Your task to perform on an android device: clear history in the chrome app Image 0: 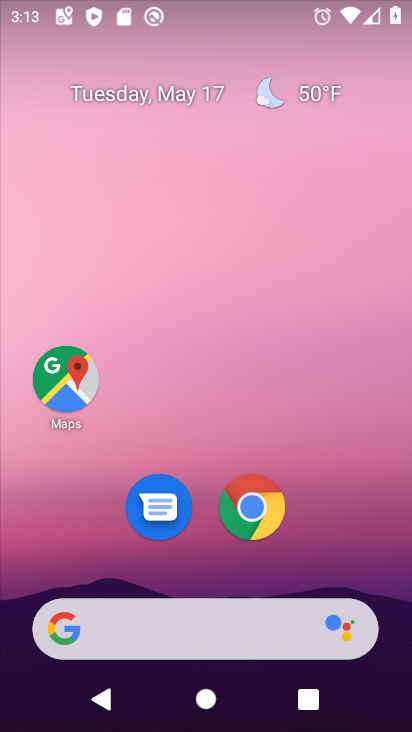
Step 0: click (263, 519)
Your task to perform on an android device: clear history in the chrome app Image 1: 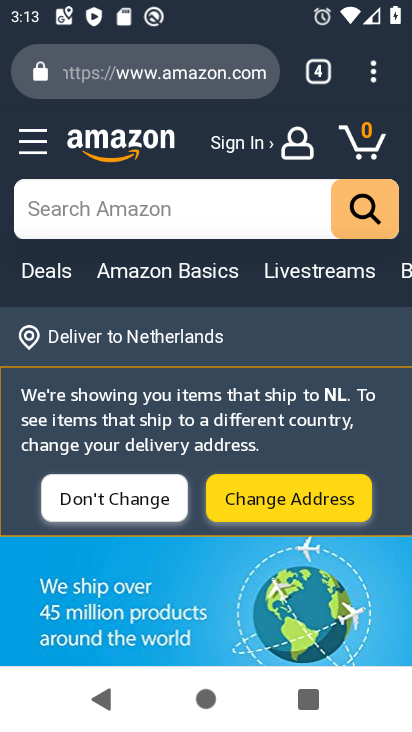
Step 1: click (370, 64)
Your task to perform on an android device: clear history in the chrome app Image 2: 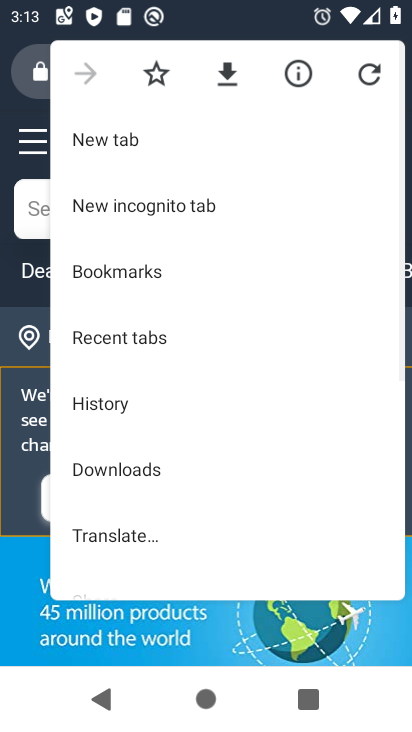
Step 2: click (118, 403)
Your task to perform on an android device: clear history in the chrome app Image 3: 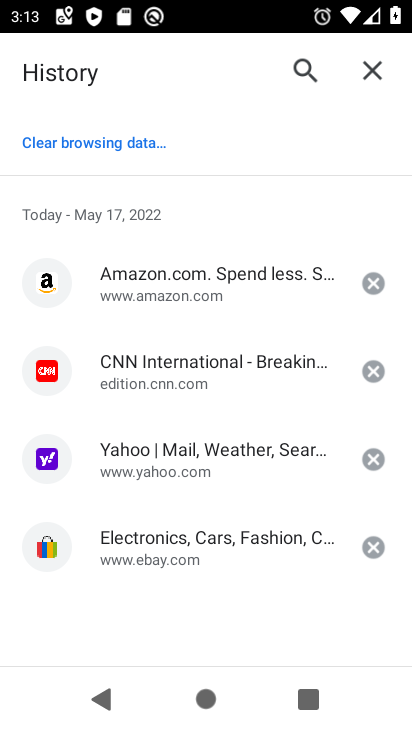
Step 3: click (144, 143)
Your task to perform on an android device: clear history in the chrome app Image 4: 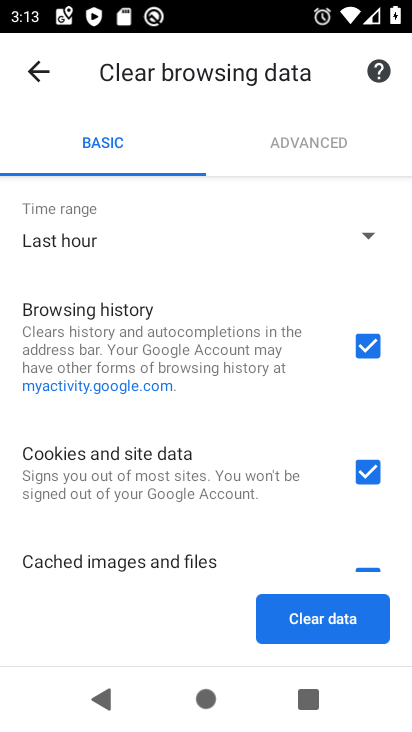
Step 4: click (343, 622)
Your task to perform on an android device: clear history in the chrome app Image 5: 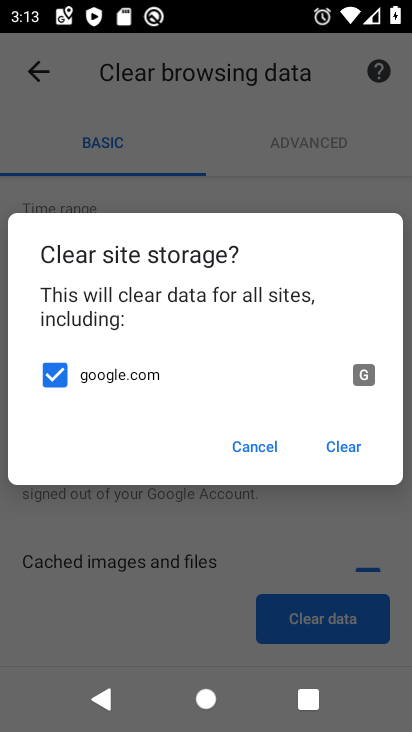
Step 5: click (337, 437)
Your task to perform on an android device: clear history in the chrome app Image 6: 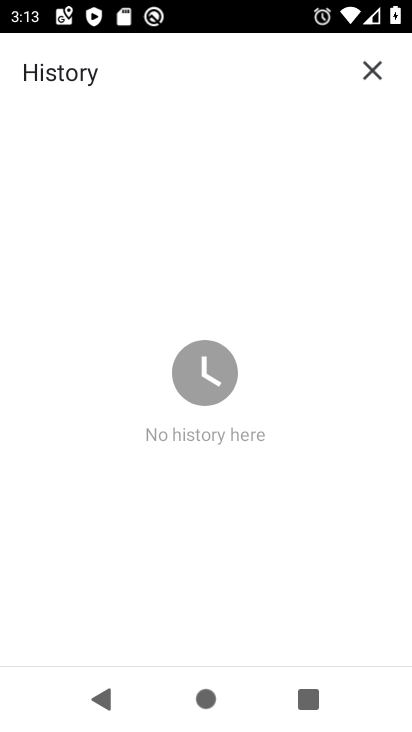
Step 6: task complete